Your task to perform on an android device: turn off smart reply in the gmail app Image 0: 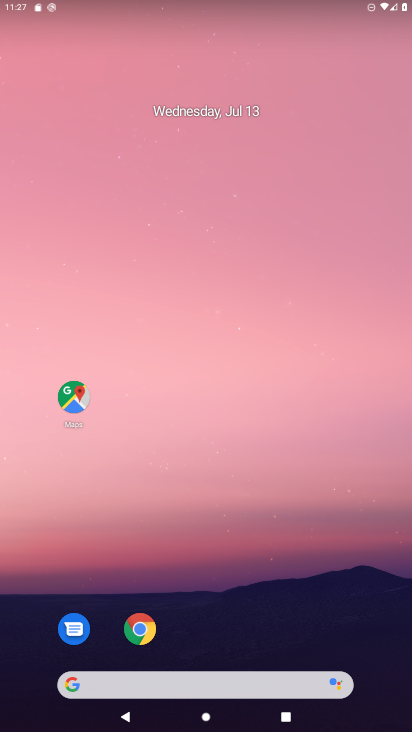
Step 0: drag from (388, 655) to (284, 123)
Your task to perform on an android device: turn off smart reply in the gmail app Image 1: 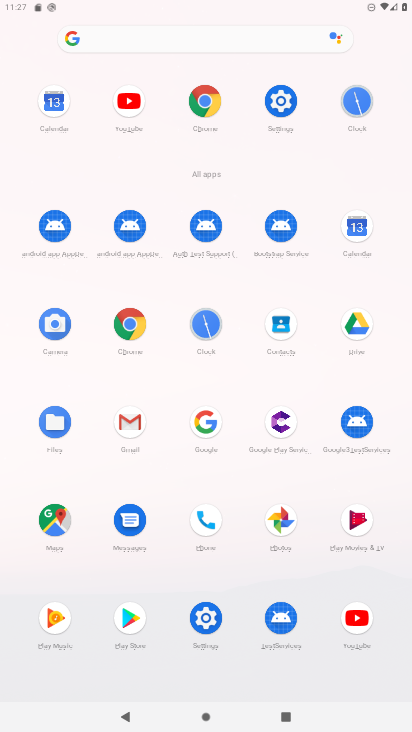
Step 1: click (137, 421)
Your task to perform on an android device: turn off smart reply in the gmail app Image 2: 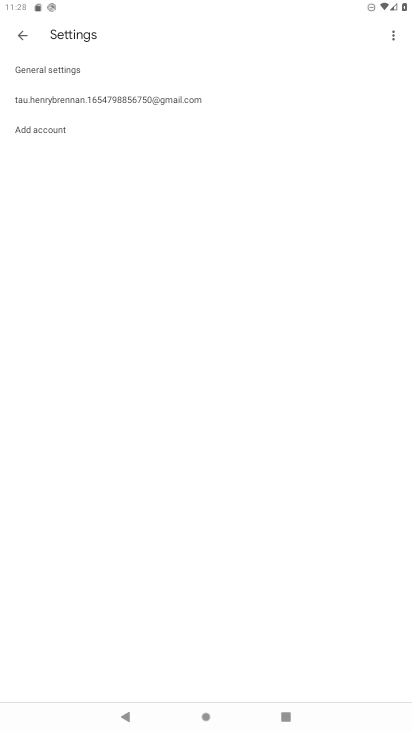
Step 2: click (19, 40)
Your task to perform on an android device: turn off smart reply in the gmail app Image 3: 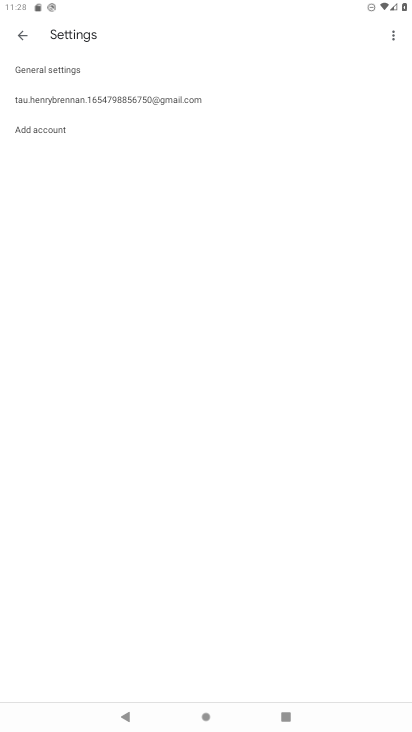
Step 3: click (38, 93)
Your task to perform on an android device: turn off smart reply in the gmail app Image 4: 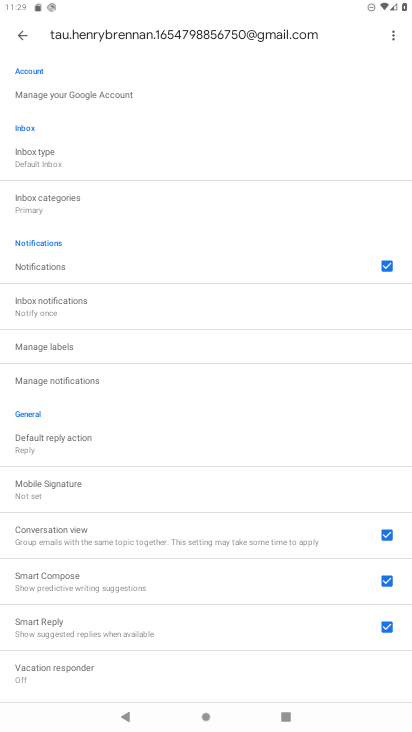
Step 4: click (91, 621)
Your task to perform on an android device: turn off smart reply in the gmail app Image 5: 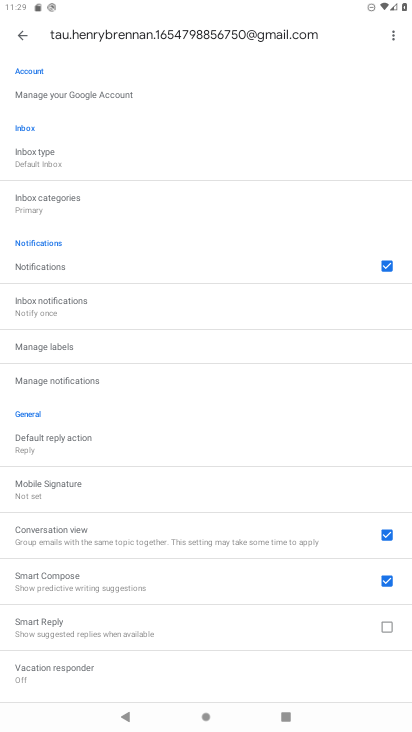
Step 5: task complete